Your task to perform on an android device: turn off javascript in the chrome app Image 0: 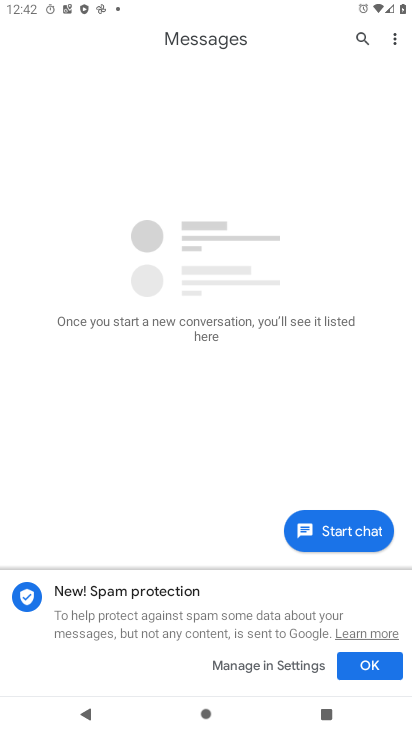
Step 0: press home button
Your task to perform on an android device: turn off javascript in the chrome app Image 1: 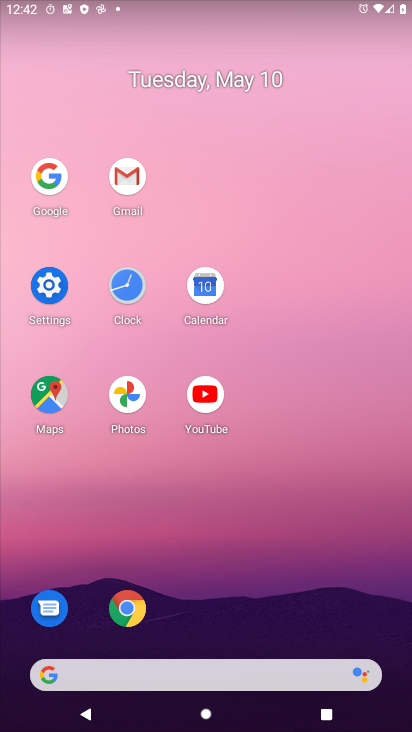
Step 1: click (128, 600)
Your task to perform on an android device: turn off javascript in the chrome app Image 2: 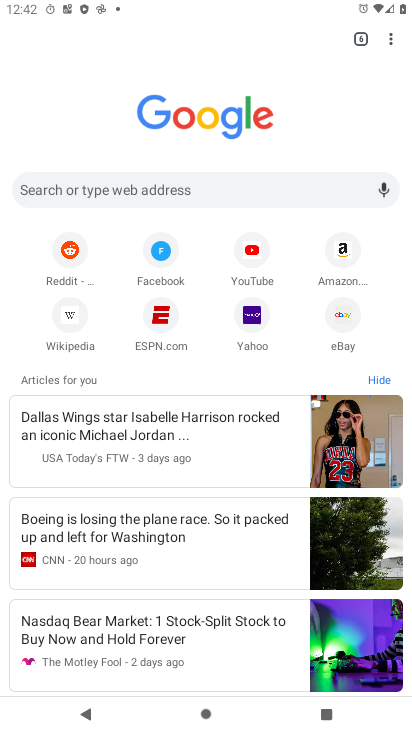
Step 2: click (396, 37)
Your task to perform on an android device: turn off javascript in the chrome app Image 3: 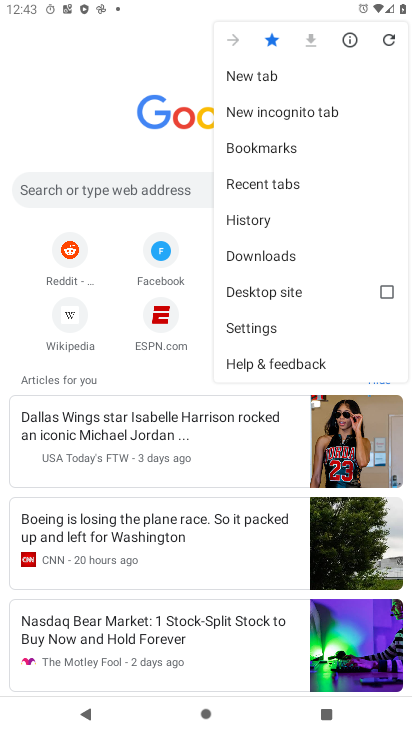
Step 3: click (277, 322)
Your task to perform on an android device: turn off javascript in the chrome app Image 4: 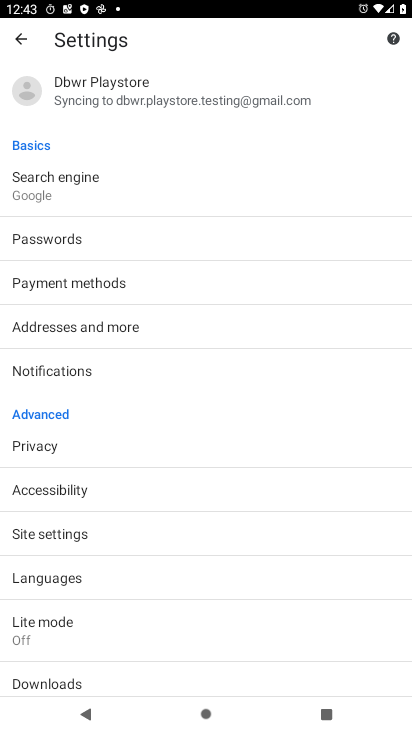
Step 4: drag from (135, 592) to (173, 237)
Your task to perform on an android device: turn off javascript in the chrome app Image 5: 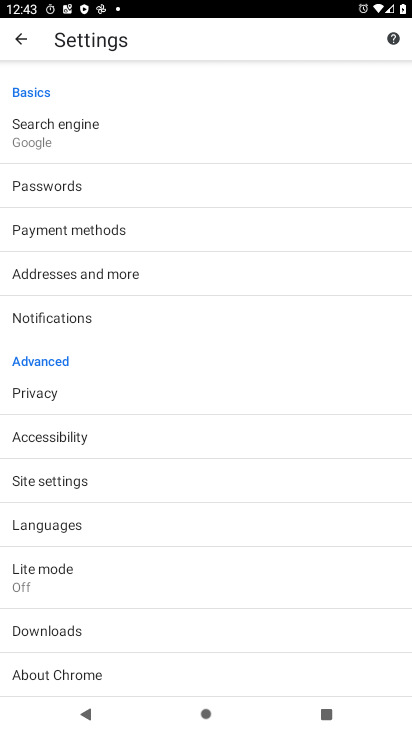
Step 5: click (113, 479)
Your task to perform on an android device: turn off javascript in the chrome app Image 6: 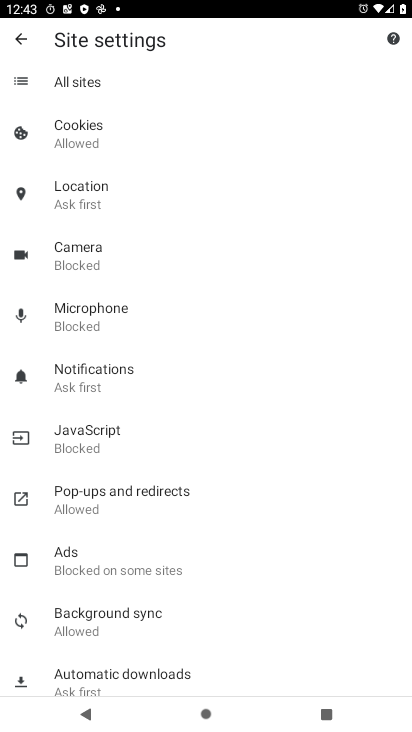
Step 6: drag from (260, 575) to (286, 197)
Your task to perform on an android device: turn off javascript in the chrome app Image 7: 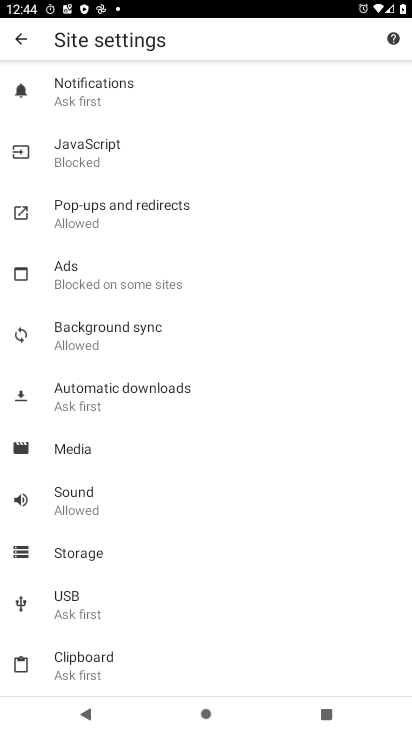
Step 7: click (148, 155)
Your task to perform on an android device: turn off javascript in the chrome app Image 8: 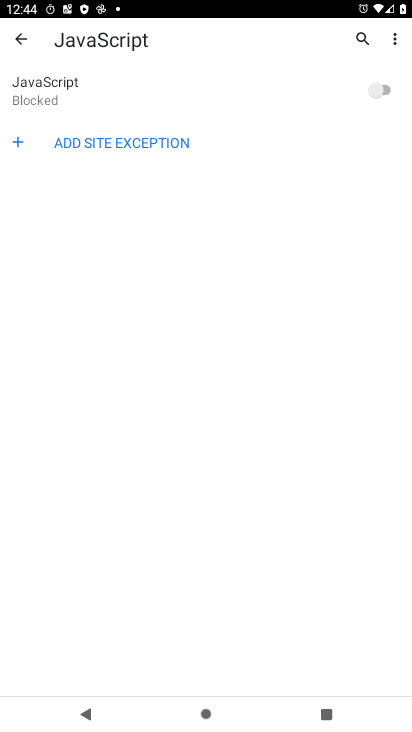
Step 8: task complete